Your task to perform on an android device: change keyboard looks Image 0: 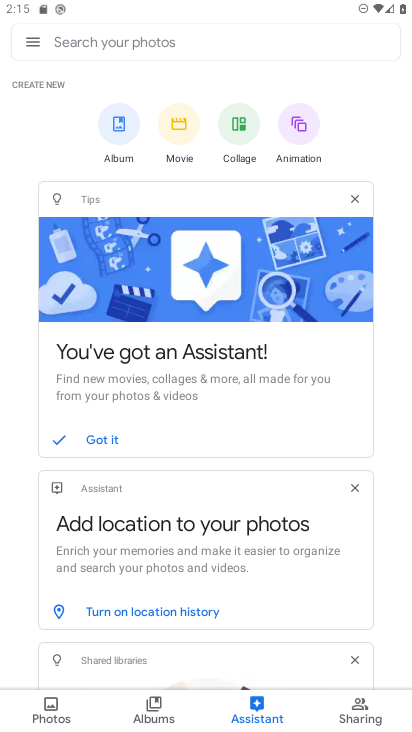
Step 0: task impossible